Your task to perform on an android device: turn off priority inbox in the gmail app Image 0: 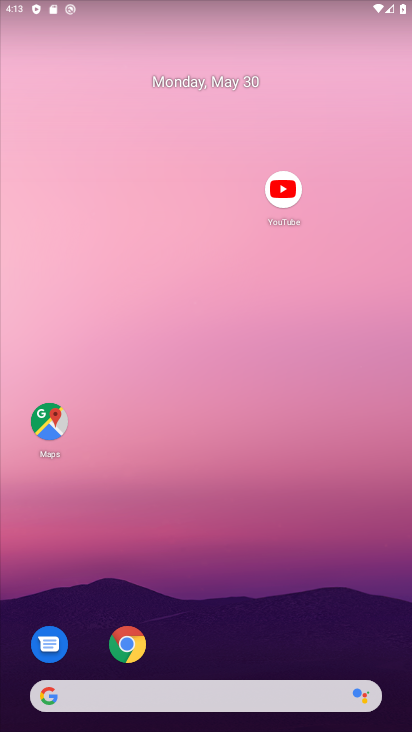
Step 0: drag from (178, 640) to (167, 160)
Your task to perform on an android device: turn off priority inbox in the gmail app Image 1: 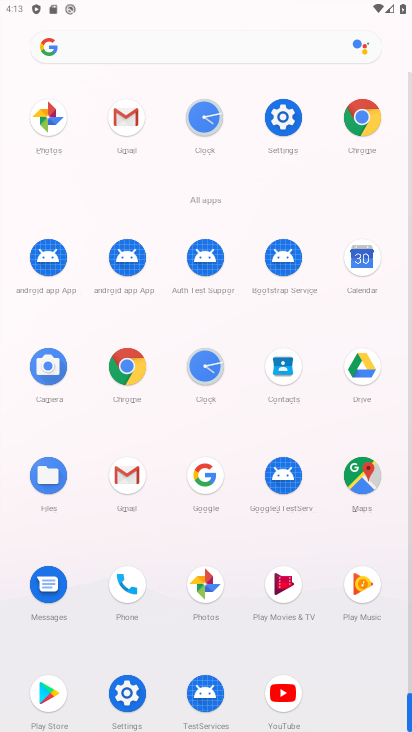
Step 1: click (144, 126)
Your task to perform on an android device: turn off priority inbox in the gmail app Image 2: 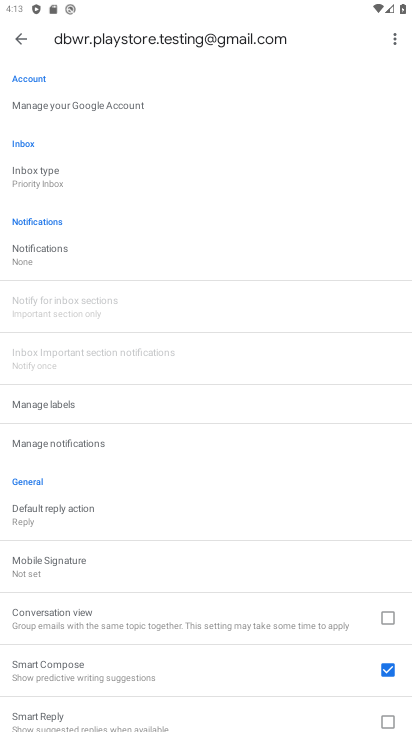
Step 2: click (69, 169)
Your task to perform on an android device: turn off priority inbox in the gmail app Image 3: 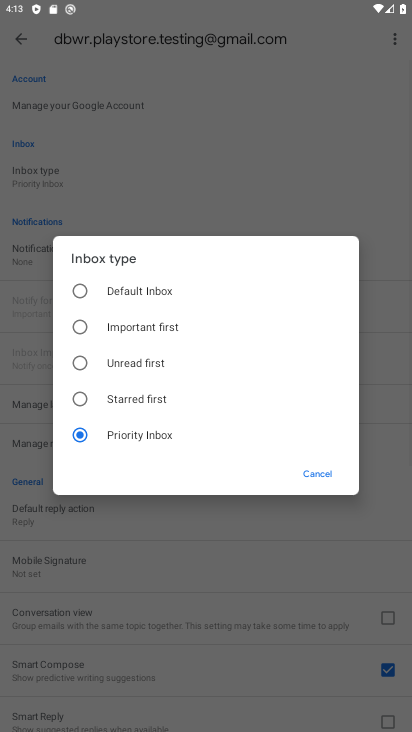
Step 3: click (171, 288)
Your task to perform on an android device: turn off priority inbox in the gmail app Image 4: 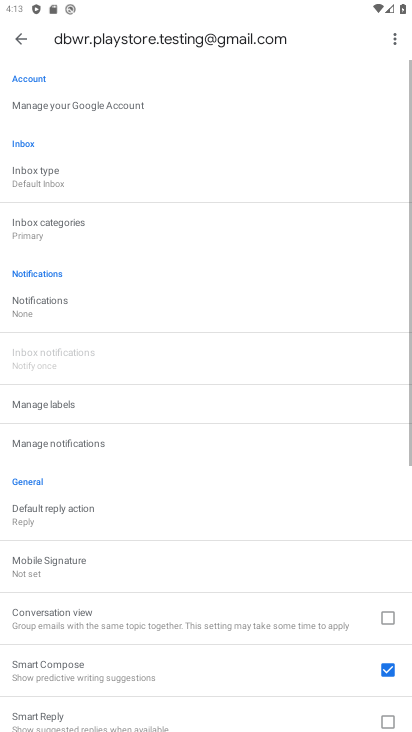
Step 4: task complete